Your task to perform on an android device: check out phone information Image 0: 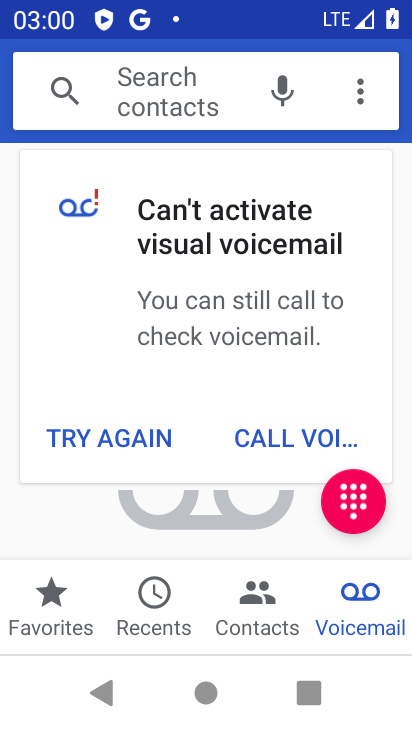
Step 0: press home button
Your task to perform on an android device: check out phone information Image 1: 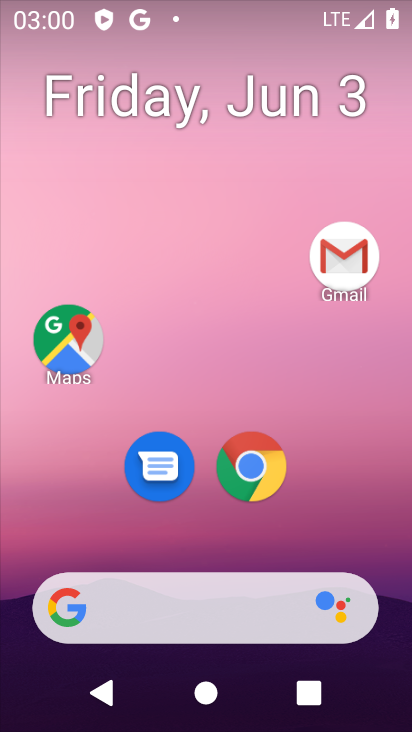
Step 1: drag from (197, 435) to (223, 75)
Your task to perform on an android device: check out phone information Image 2: 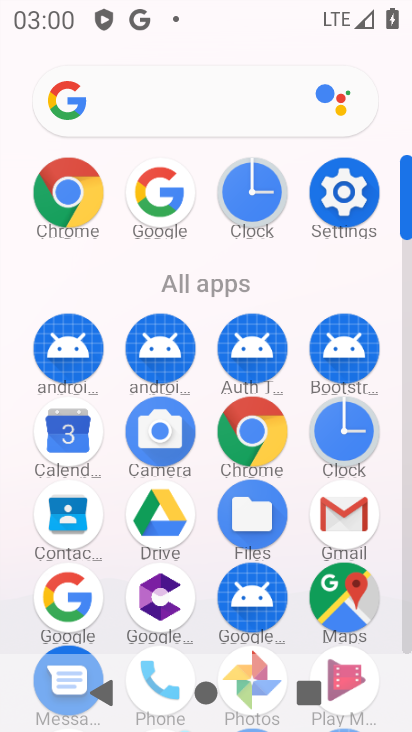
Step 2: click (331, 198)
Your task to perform on an android device: check out phone information Image 3: 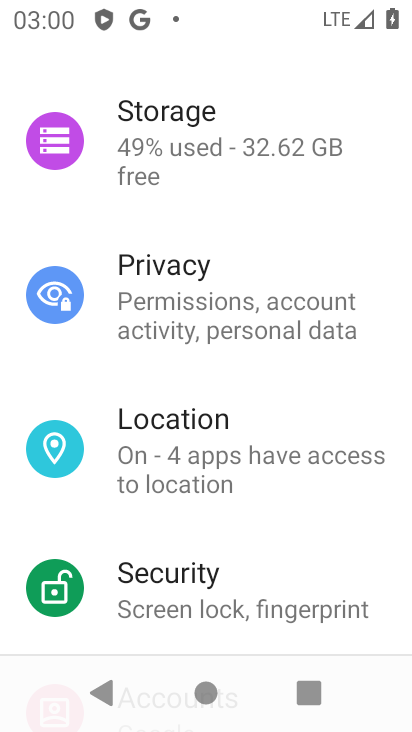
Step 3: drag from (159, 605) to (197, 357)
Your task to perform on an android device: check out phone information Image 4: 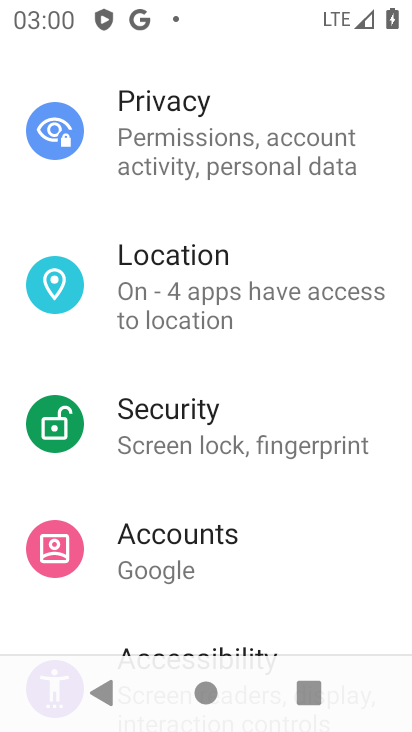
Step 4: drag from (202, 561) to (258, 211)
Your task to perform on an android device: check out phone information Image 5: 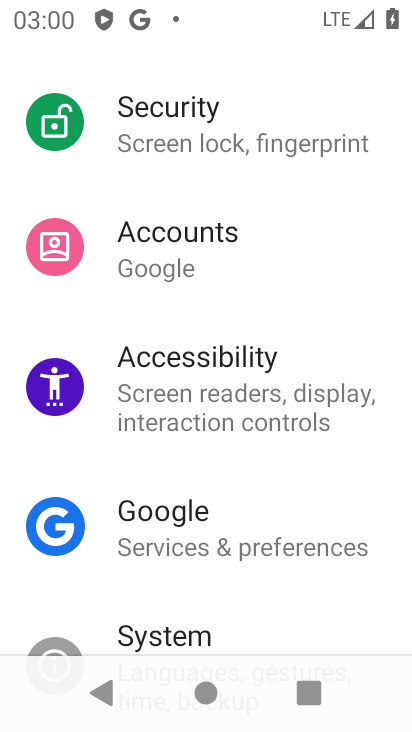
Step 5: drag from (202, 527) to (214, 237)
Your task to perform on an android device: check out phone information Image 6: 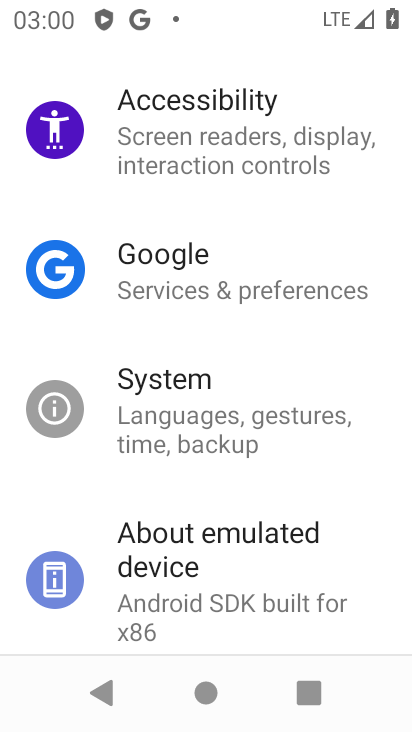
Step 6: click (192, 551)
Your task to perform on an android device: check out phone information Image 7: 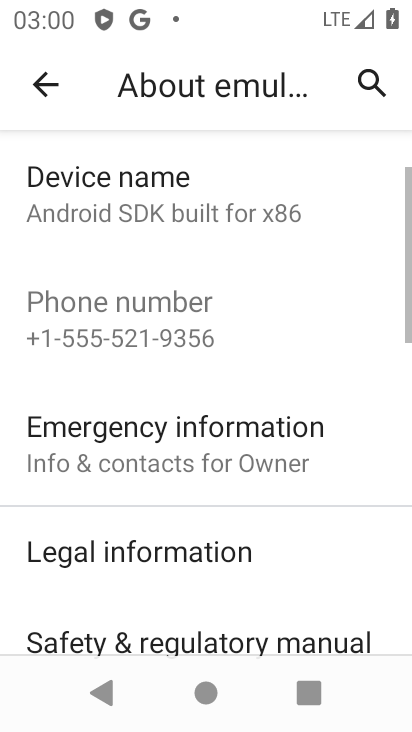
Step 7: task complete